Your task to perform on an android device: set the stopwatch Image 0: 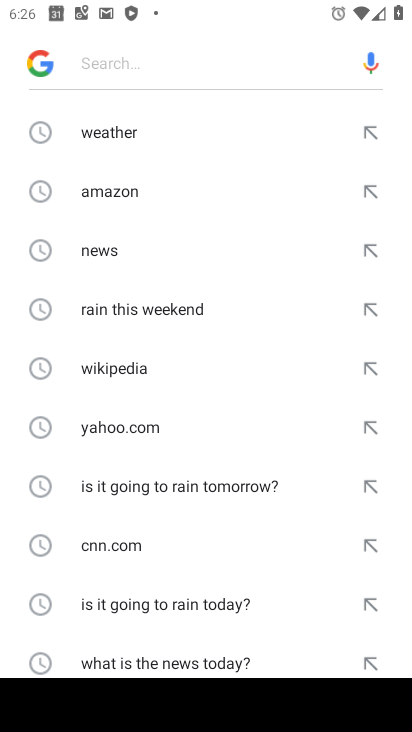
Step 0: press home button
Your task to perform on an android device: set the stopwatch Image 1: 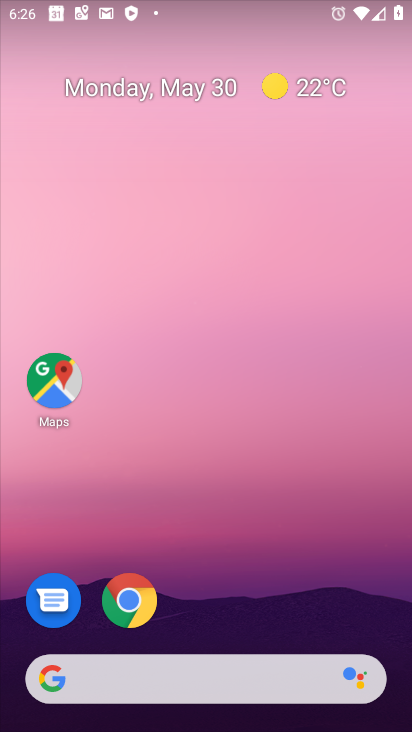
Step 1: drag from (233, 615) to (307, 64)
Your task to perform on an android device: set the stopwatch Image 2: 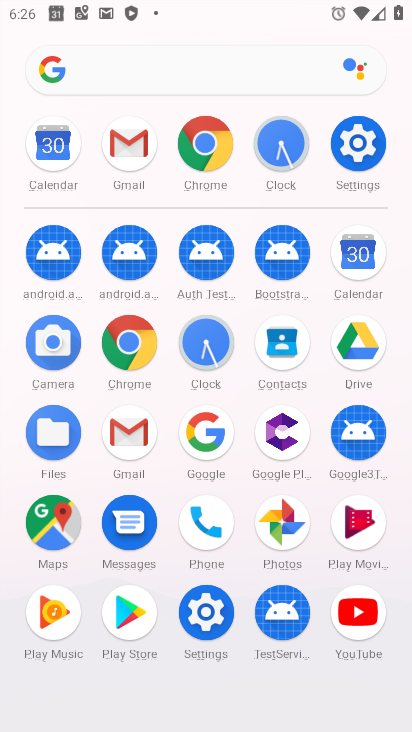
Step 2: click (201, 342)
Your task to perform on an android device: set the stopwatch Image 3: 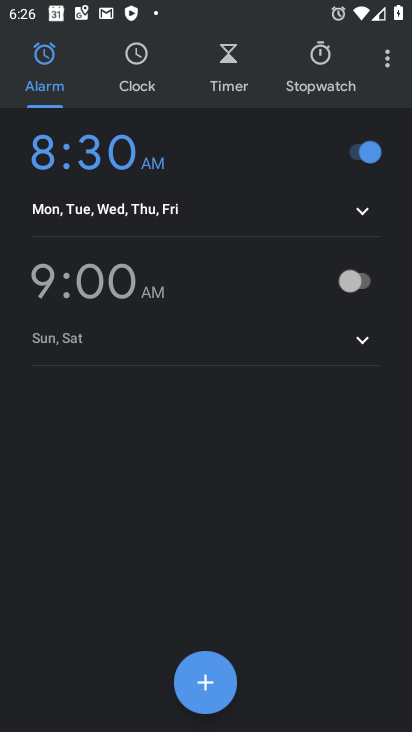
Step 3: click (329, 62)
Your task to perform on an android device: set the stopwatch Image 4: 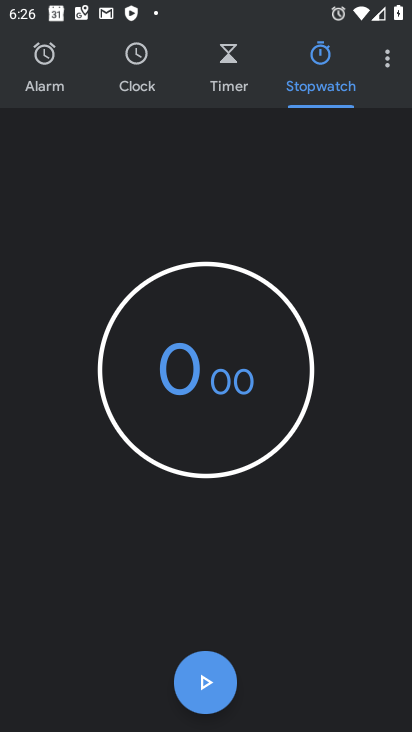
Step 4: click (199, 371)
Your task to perform on an android device: set the stopwatch Image 5: 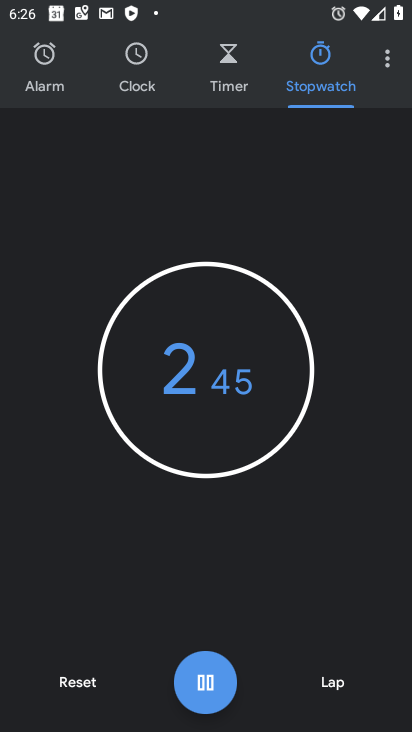
Step 5: task complete